Your task to perform on an android device: choose inbox layout in the gmail app Image 0: 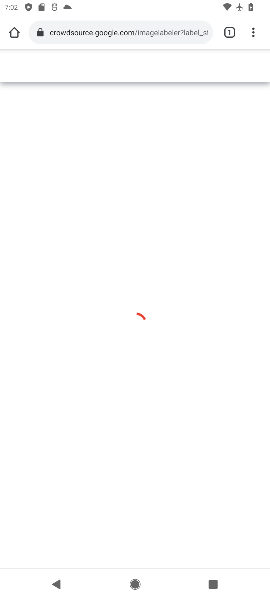
Step 0: press home button
Your task to perform on an android device: choose inbox layout in the gmail app Image 1: 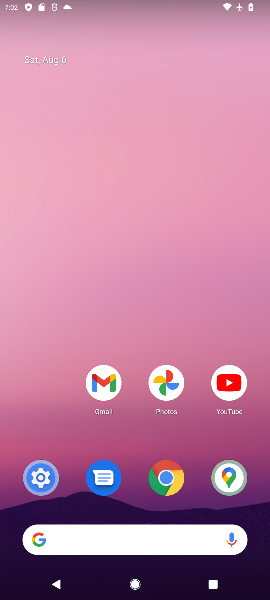
Step 1: click (100, 376)
Your task to perform on an android device: choose inbox layout in the gmail app Image 2: 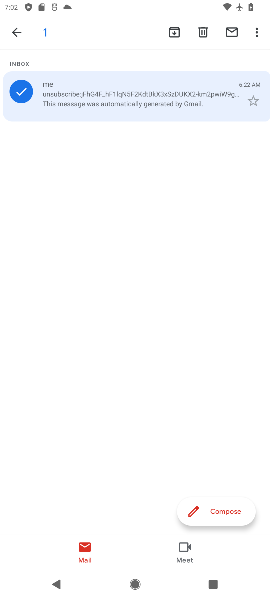
Step 2: click (15, 34)
Your task to perform on an android device: choose inbox layout in the gmail app Image 3: 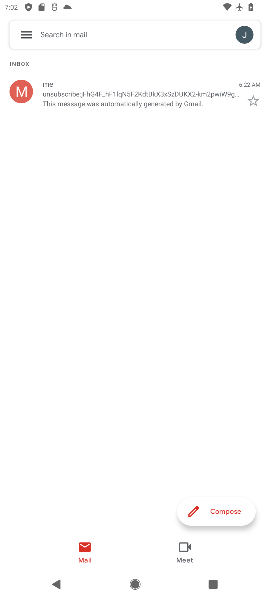
Step 3: click (21, 35)
Your task to perform on an android device: choose inbox layout in the gmail app Image 4: 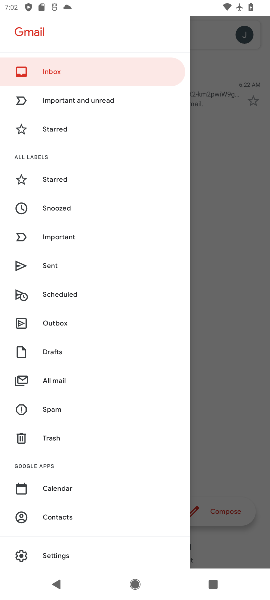
Step 4: click (57, 557)
Your task to perform on an android device: choose inbox layout in the gmail app Image 5: 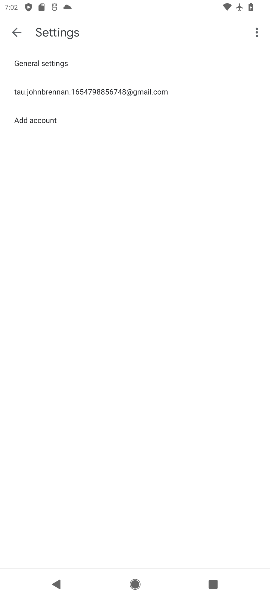
Step 5: click (70, 91)
Your task to perform on an android device: choose inbox layout in the gmail app Image 6: 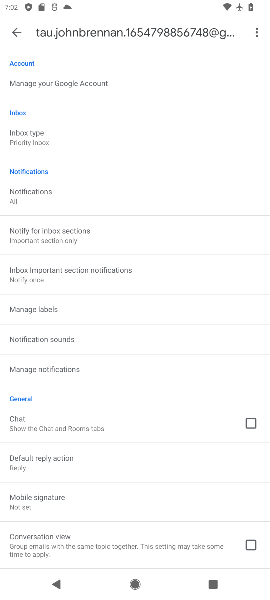
Step 6: click (32, 133)
Your task to perform on an android device: choose inbox layout in the gmail app Image 7: 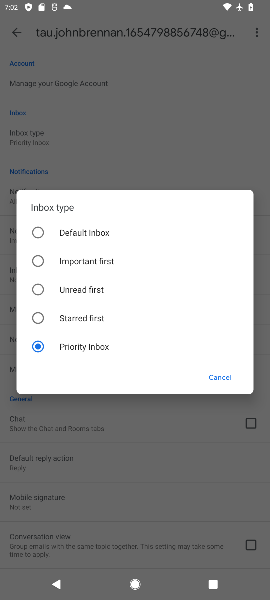
Step 7: click (37, 230)
Your task to perform on an android device: choose inbox layout in the gmail app Image 8: 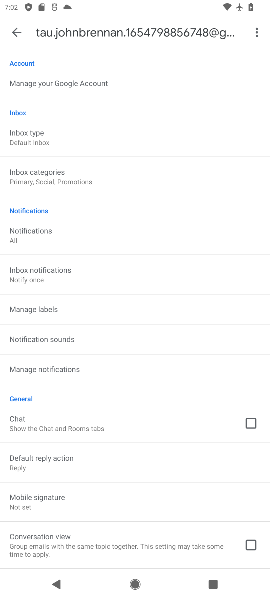
Step 8: task complete